Your task to perform on an android device: Open Google Chrome Image 0: 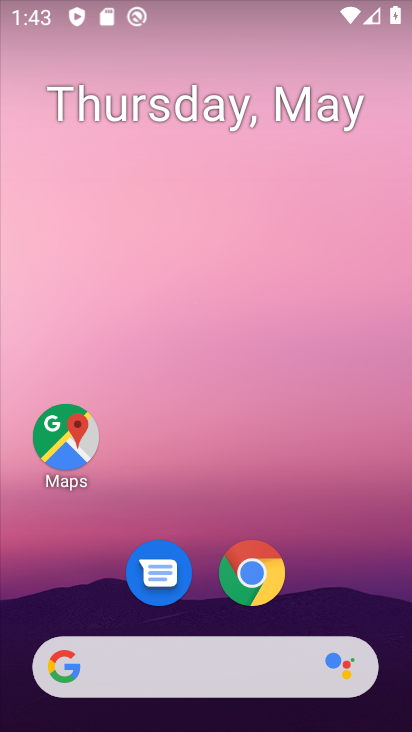
Step 0: drag from (334, 595) to (297, 176)
Your task to perform on an android device: Open Google Chrome Image 1: 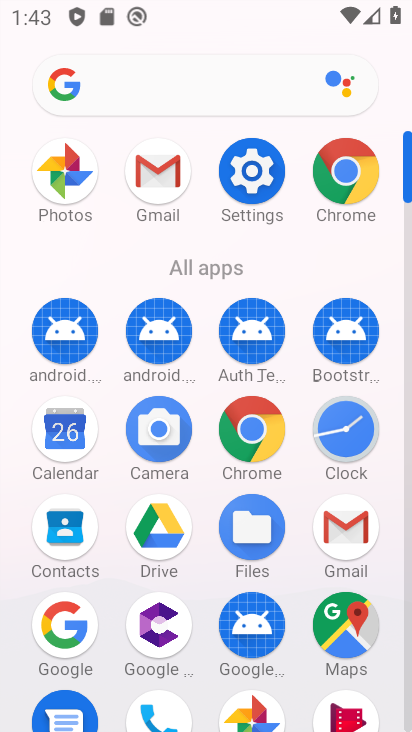
Step 1: click (325, 171)
Your task to perform on an android device: Open Google Chrome Image 2: 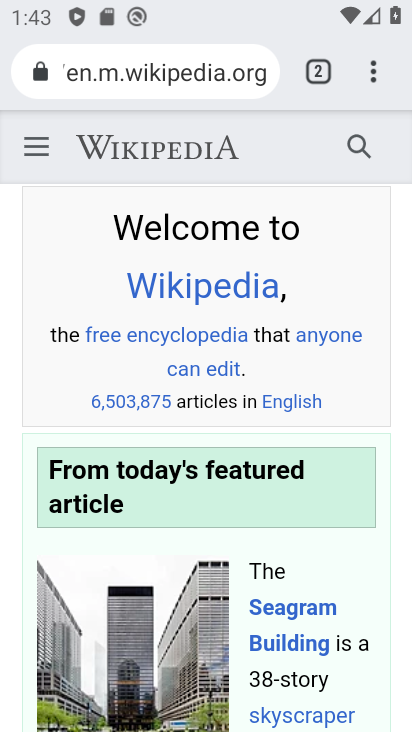
Step 2: task complete